Your task to perform on an android device: change the upload size in google photos Image 0: 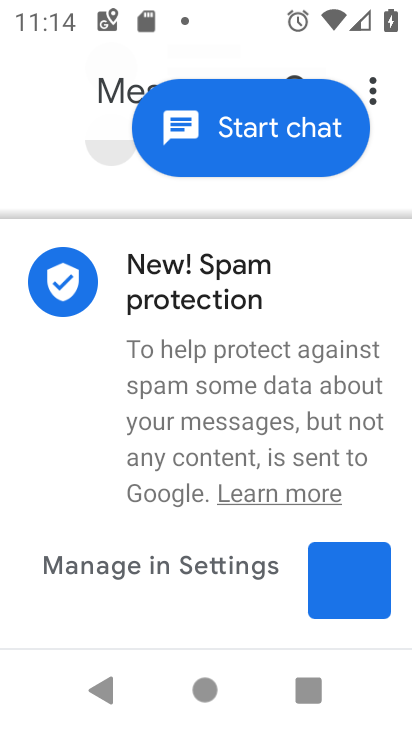
Step 0: press home button
Your task to perform on an android device: change the upload size in google photos Image 1: 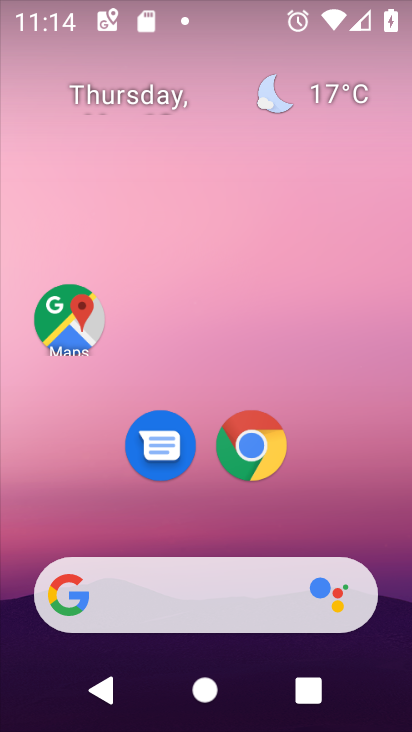
Step 1: drag from (281, 495) to (236, 49)
Your task to perform on an android device: change the upload size in google photos Image 2: 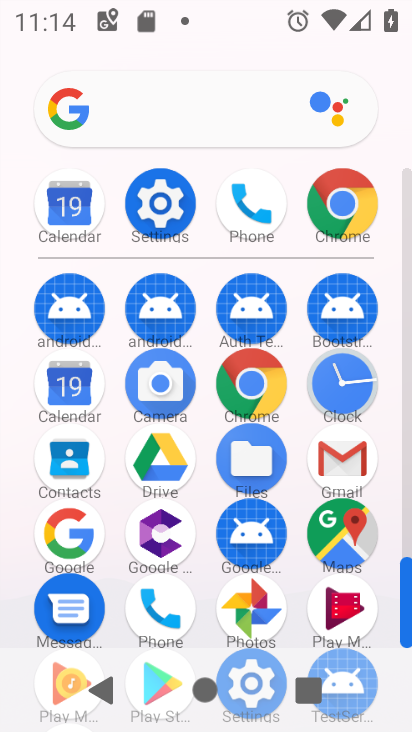
Step 2: click (241, 610)
Your task to perform on an android device: change the upload size in google photos Image 3: 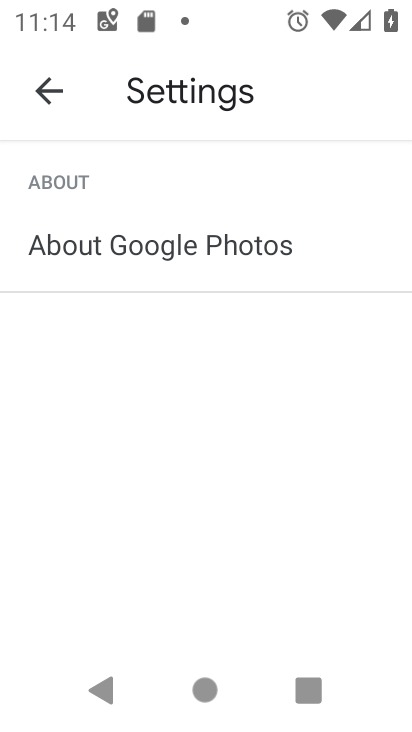
Step 3: click (56, 108)
Your task to perform on an android device: change the upload size in google photos Image 4: 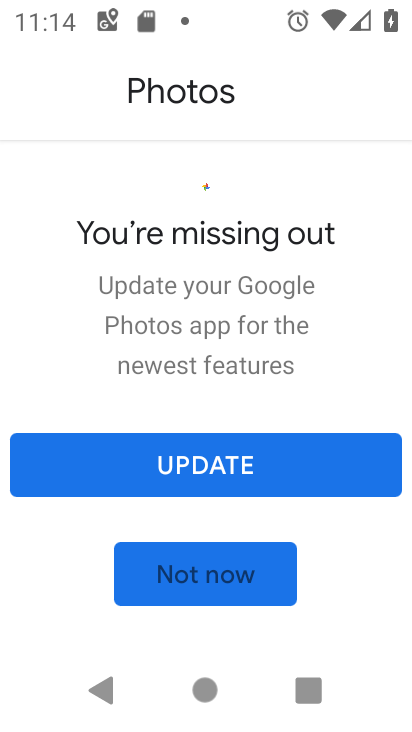
Step 4: click (266, 479)
Your task to perform on an android device: change the upload size in google photos Image 5: 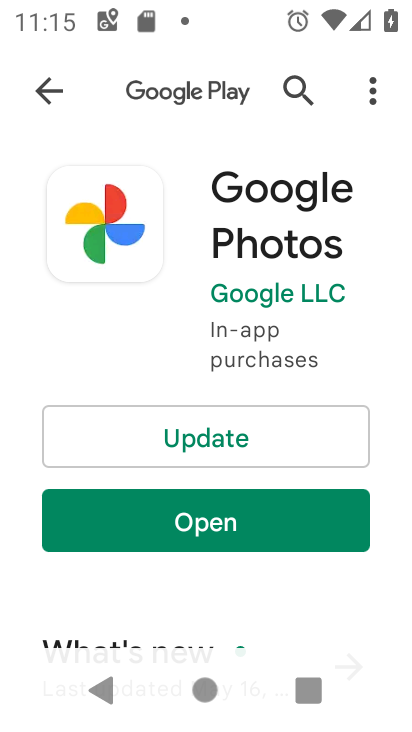
Step 5: click (238, 451)
Your task to perform on an android device: change the upload size in google photos Image 6: 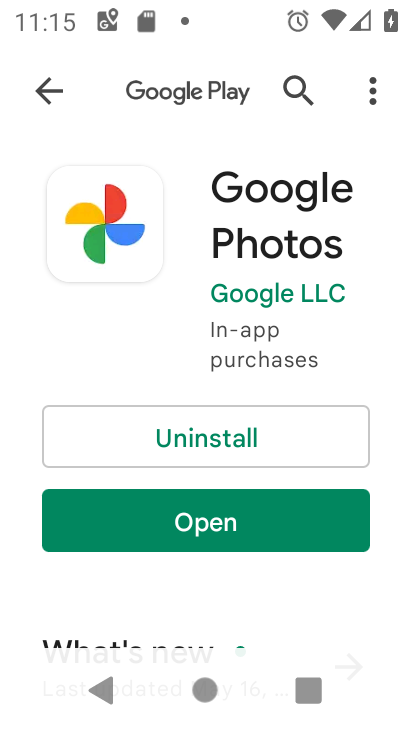
Step 6: click (251, 522)
Your task to perform on an android device: change the upload size in google photos Image 7: 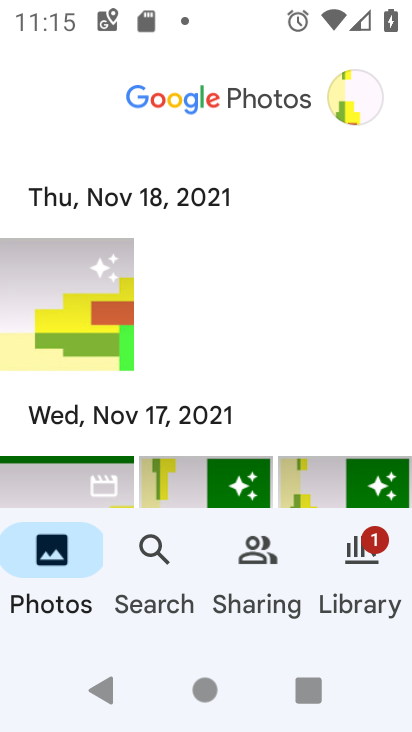
Step 7: click (364, 120)
Your task to perform on an android device: change the upload size in google photos Image 8: 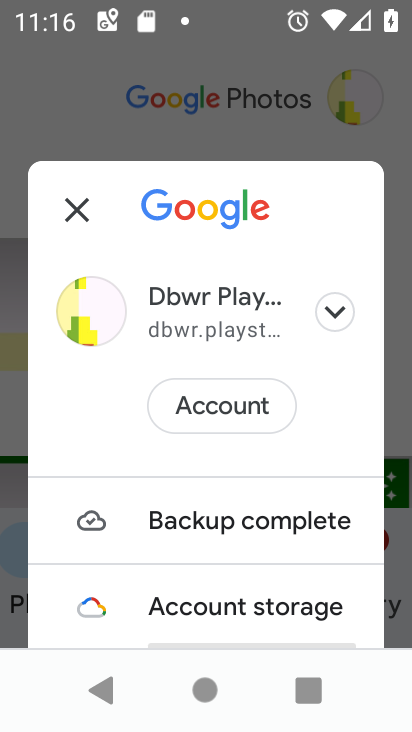
Step 8: drag from (224, 487) to (239, 171)
Your task to perform on an android device: change the upload size in google photos Image 9: 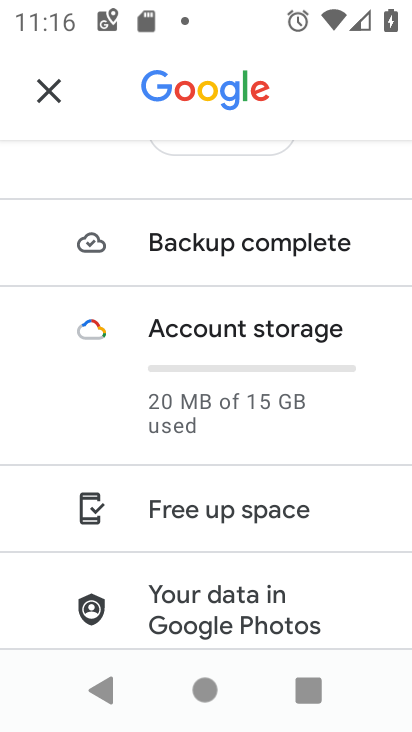
Step 9: drag from (215, 504) to (231, 259)
Your task to perform on an android device: change the upload size in google photos Image 10: 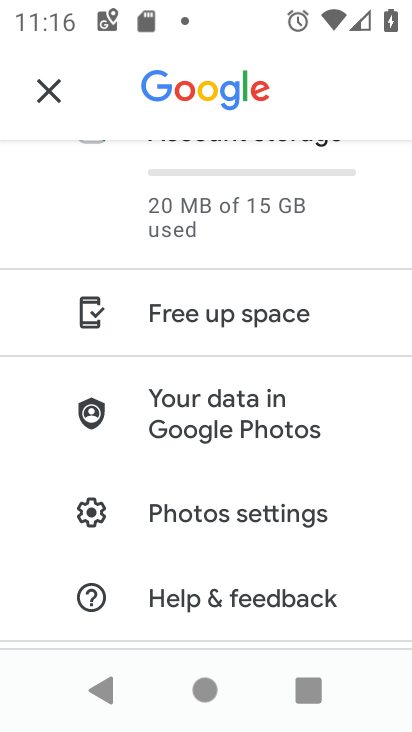
Step 10: click (239, 519)
Your task to perform on an android device: change the upload size in google photos Image 11: 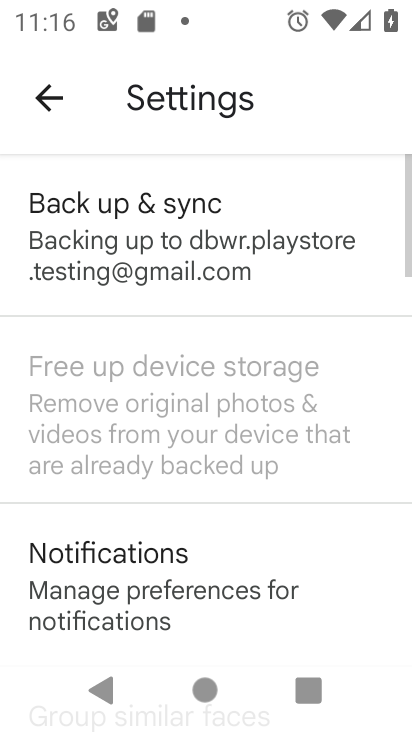
Step 11: drag from (240, 512) to (217, 607)
Your task to perform on an android device: change the upload size in google photos Image 12: 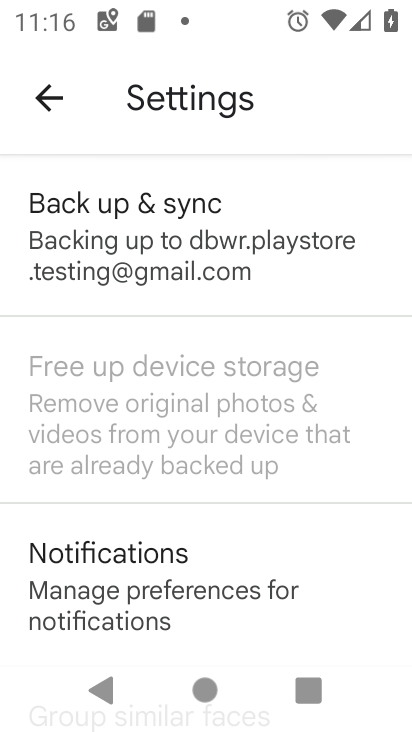
Step 12: click (194, 285)
Your task to perform on an android device: change the upload size in google photos Image 13: 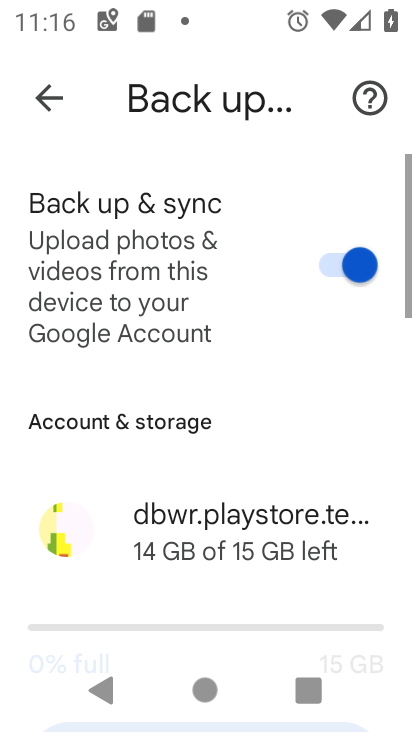
Step 13: drag from (198, 510) to (186, 155)
Your task to perform on an android device: change the upload size in google photos Image 14: 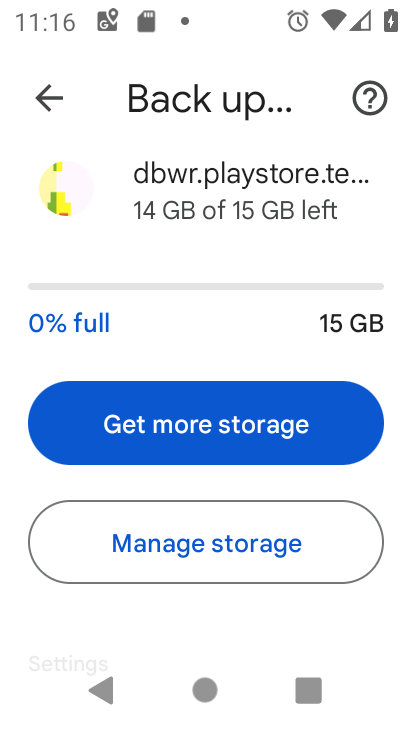
Step 14: drag from (171, 487) to (178, 260)
Your task to perform on an android device: change the upload size in google photos Image 15: 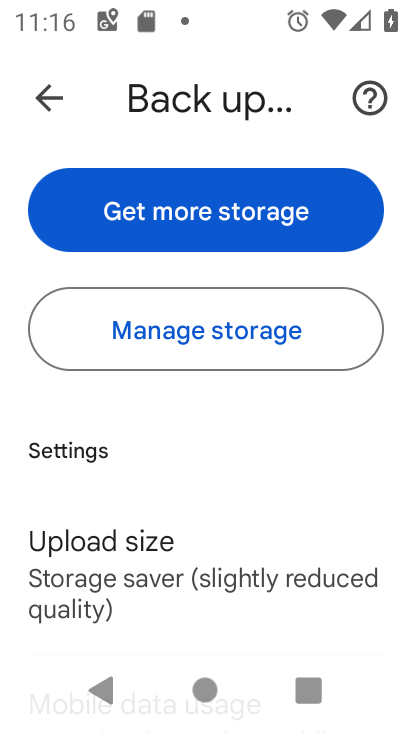
Step 15: click (175, 566)
Your task to perform on an android device: change the upload size in google photos Image 16: 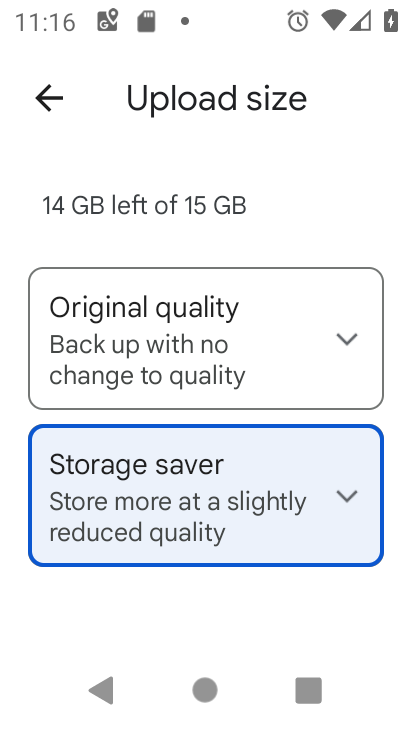
Step 16: click (210, 374)
Your task to perform on an android device: change the upload size in google photos Image 17: 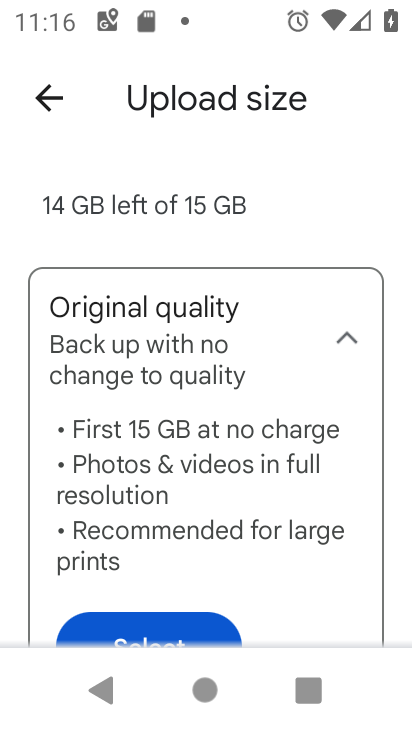
Step 17: click (174, 623)
Your task to perform on an android device: change the upload size in google photos Image 18: 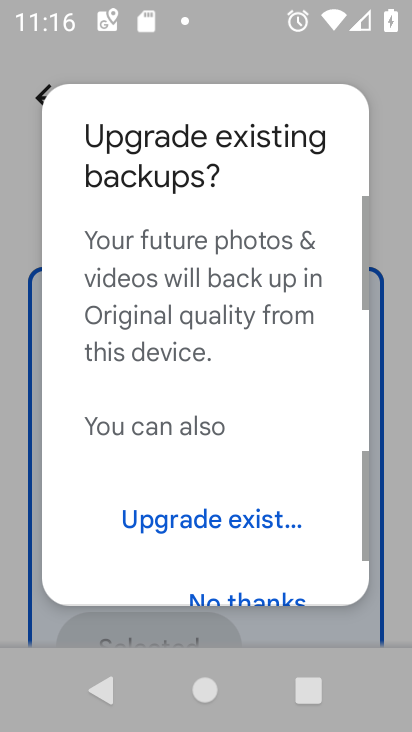
Step 18: drag from (255, 556) to (260, 292)
Your task to perform on an android device: change the upload size in google photos Image 19: 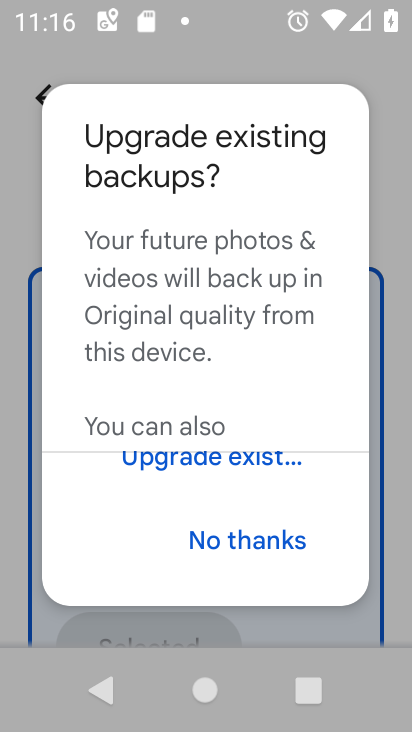
Step 19: click (225, 544)
Your task to perform on an android device: change the upload size in google photos Image 20: 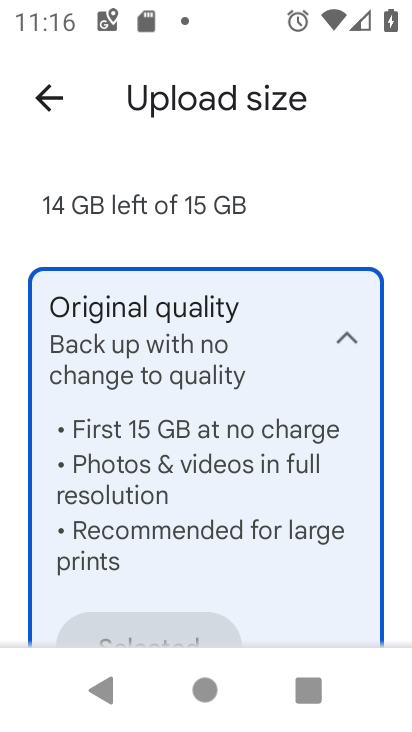
Step 20: task complete